Your task to perform on an android device: toggle notifications settings in the gmail app Image 0: 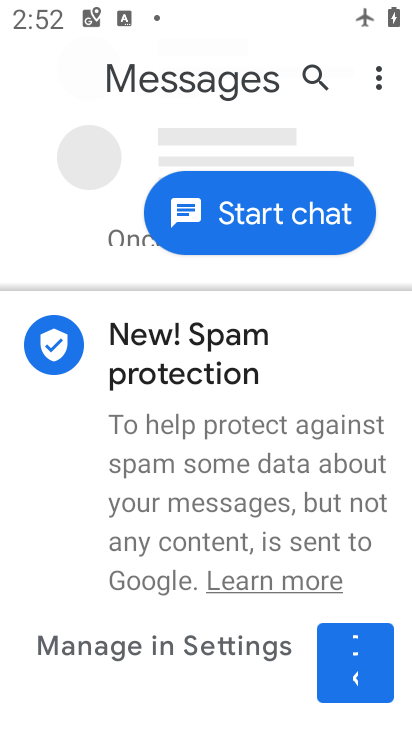
Step 0: press home button
Your task to perform on an android device: toggle notifications settings in the gmail app Image 1: 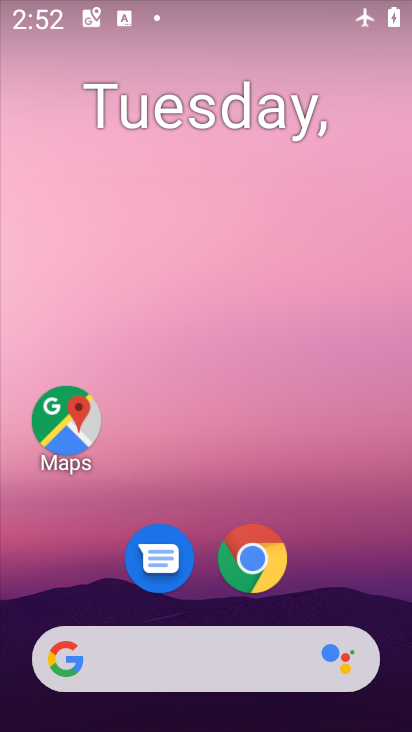
Step 1: drag from (227, 318) to (227, 169)
Your task to perform on an android device: toggle notifications settings in the gmail app Image 2: 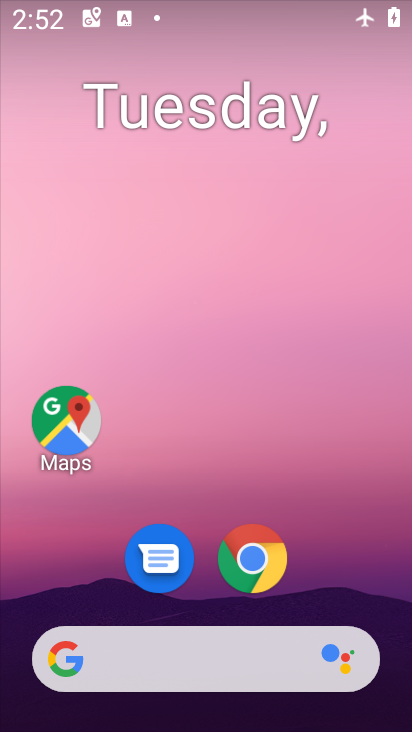
Step 2: drag from (195, 519) to (198, 106)
Your task to perform on an android device: toggle notifications settings in the gmail app Image 3: 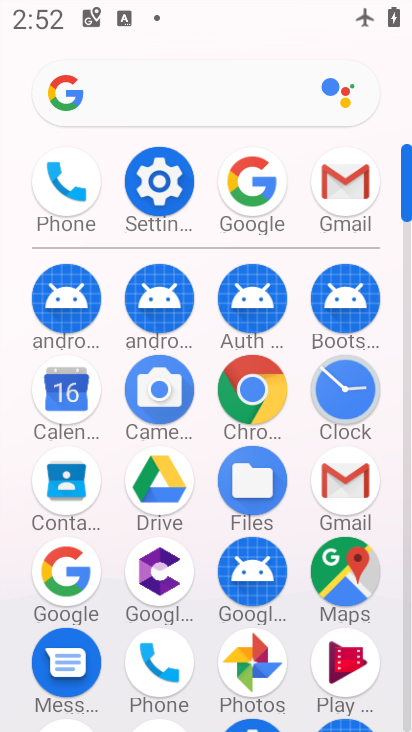
Step 3: click (318, 182)
Your task to perform on an android device: toggle notifications settings in the gmail app Image 4: 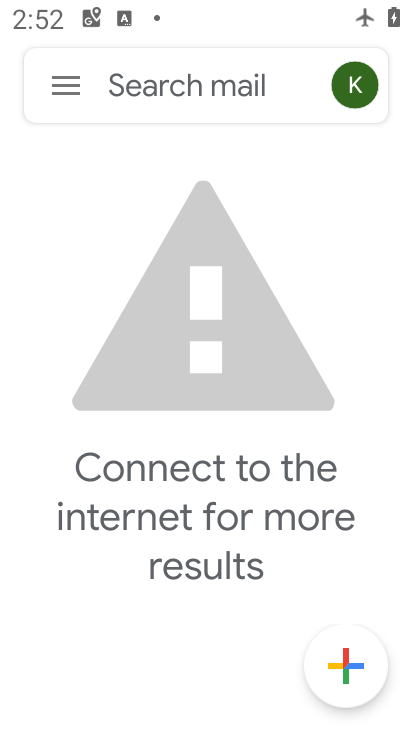
Step 4: click (62, 91)
Your task to perform on an android device: toggle notifications settings in the gmail app Image 5: 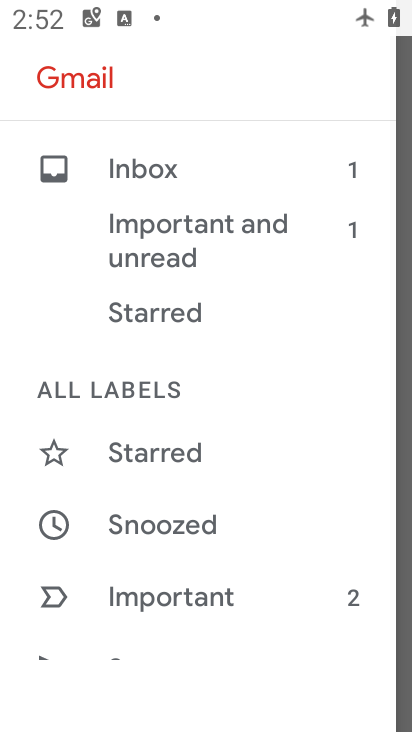
Step 5: drag from (191, 596) to (171, 262)
Your task to perform on an android device: toggle notifications settings in the gmail app Image 6: 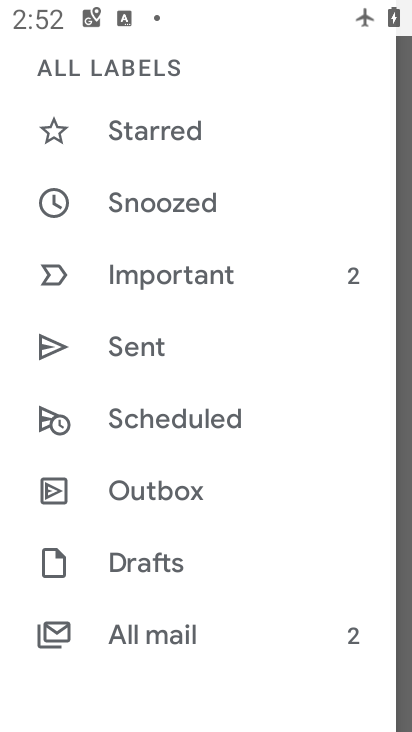
Step 6: drag from (177, 583) to (200, 211)
Your task to perform on an android device: toggle notifications settings in the gmail app Image 7: 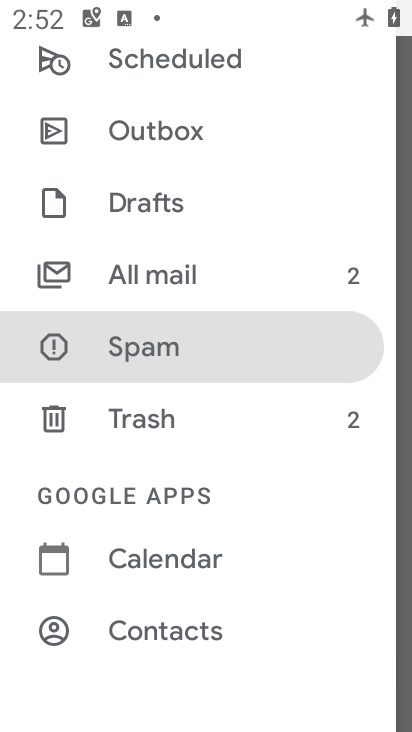
Step 7: drag from (175, 575) to (199, 243)
Your task to perform on an android device: toggle notifications settings in the gmail app Image 8: 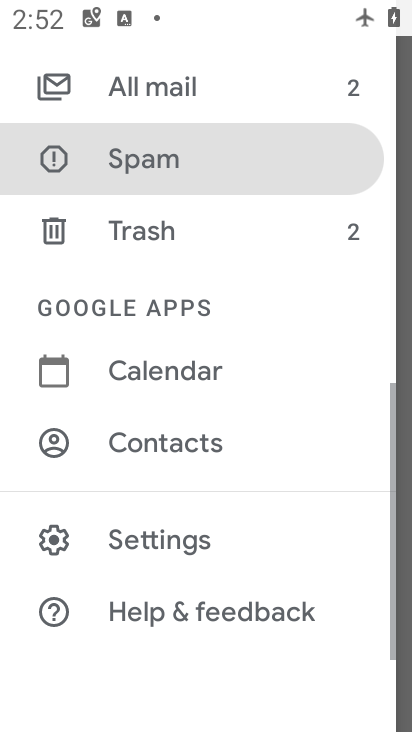
Step 8: click (172, 531)
Your task to perform on an android device: toggle notifications settings in the gmail app Image 9: 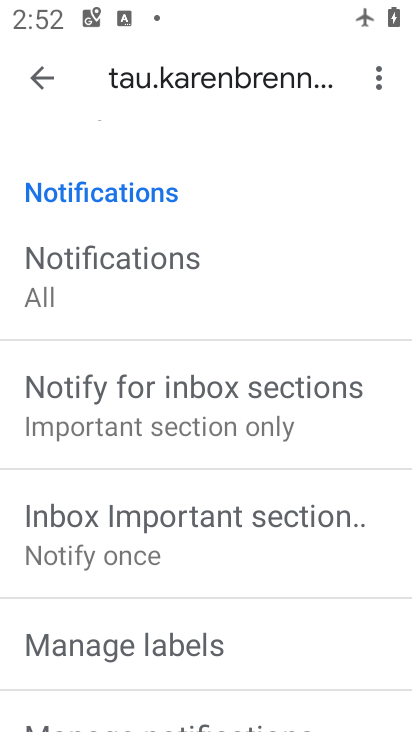
Step 9: drag from (186, 650) to (174, 324)
Your task to perform on an android device: toggle notifications settings in the gmail app Image 10: 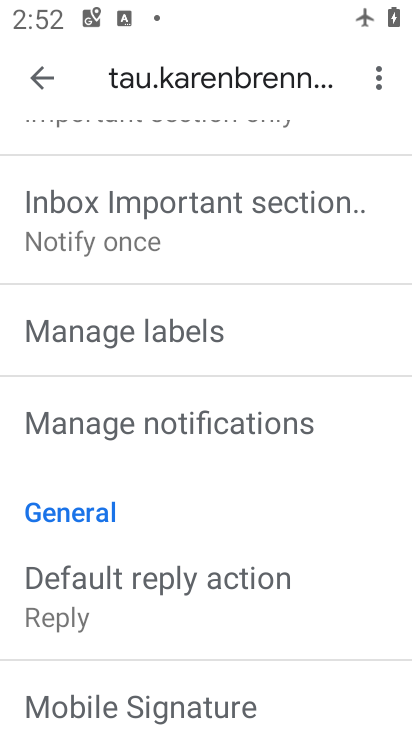
Step 10: click (142, 437)
Your task to perform on an android device: toggle notifications settings in the gmail app Image 11: 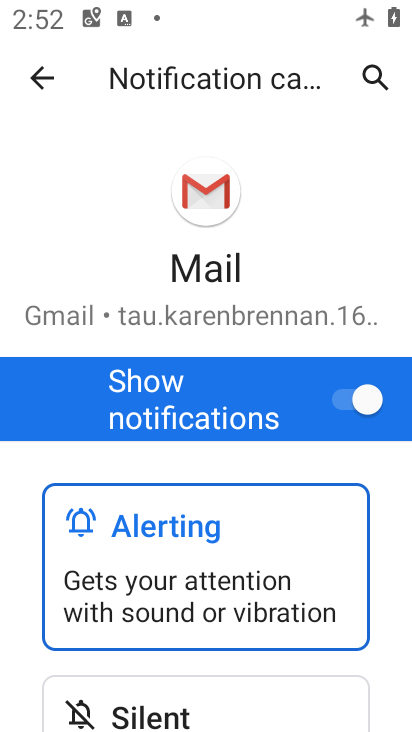
Step 11: drag from (251, 646) to (235, 381)
Your task to perform on an android device: toggle notifications settings in the gmail app Image 12: 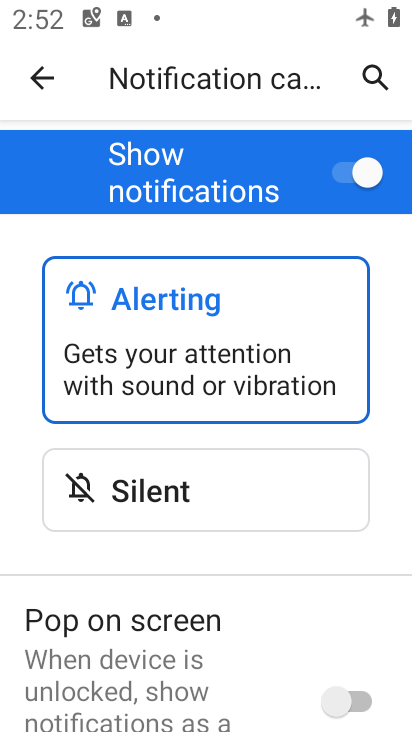
Step 12: click (347, 174)
Your task to perform on an android device: toggle notifications settings in the gmail app Image 13: 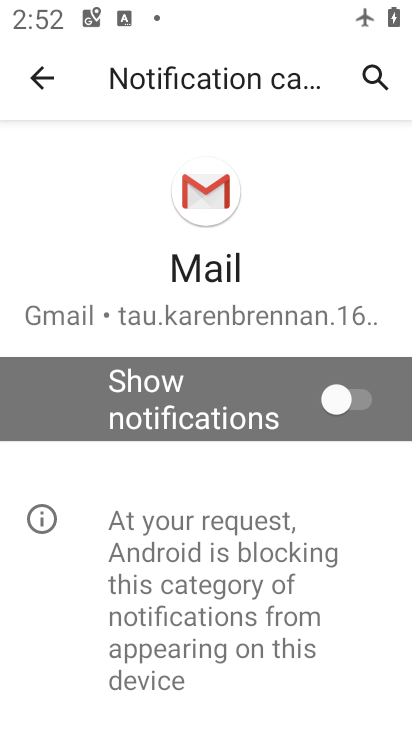
Step 13: task complete